Your task to perform on an android device: Open Android settings Image 0: 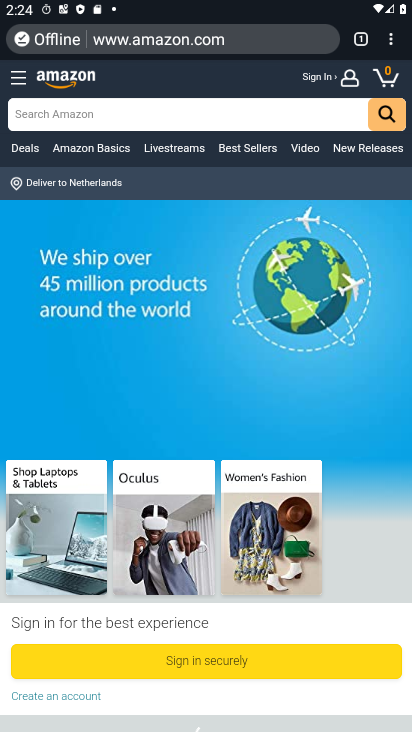
Step 0: press home button
Your task to perform on an android device: Open Android settings Image 1: 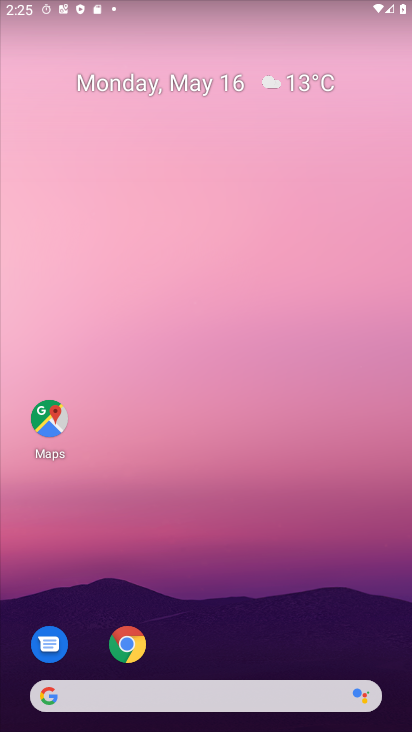
Step 1: drag from (178, 320) to (168, 63)
Your task to perform on an android device: Open Android settings Image 2: 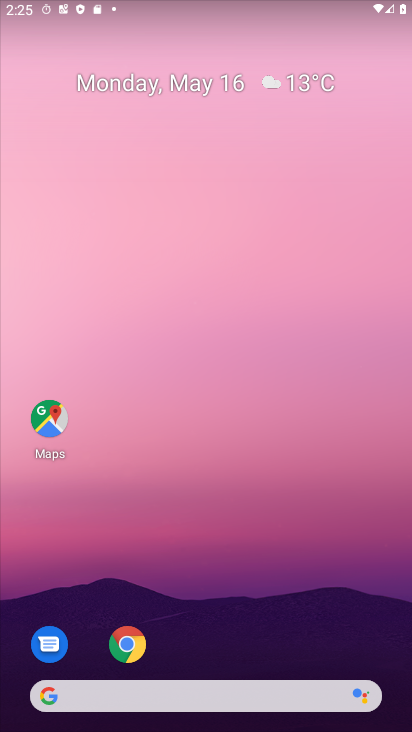
Step 2: drag from (228, 678) to (232, 51)
Your task to perform on an android device: Open Android settings Image 3: 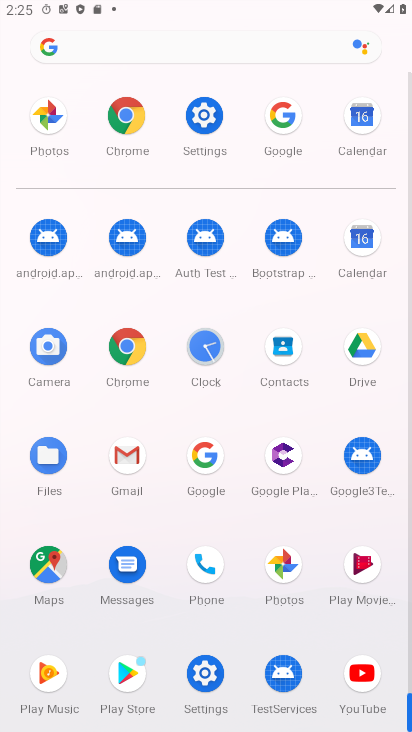
Step 3: drag from (123, 403) to (132, 9)
Your task to perform on an android device: Open Android settings Image 4: 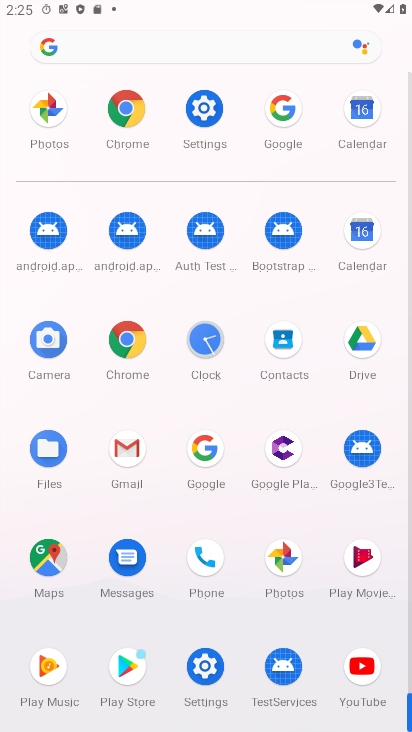
Step 4: click (216, 652)
Your task to perform on an android device: Open Android settings Image 5: 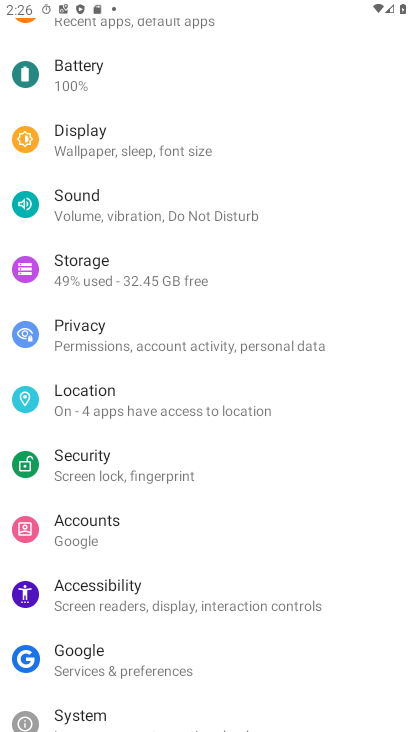
Step 5: drag from (108, 613) to (40, 16)
Your task to perform on an android device: Open Android settings Image 6: 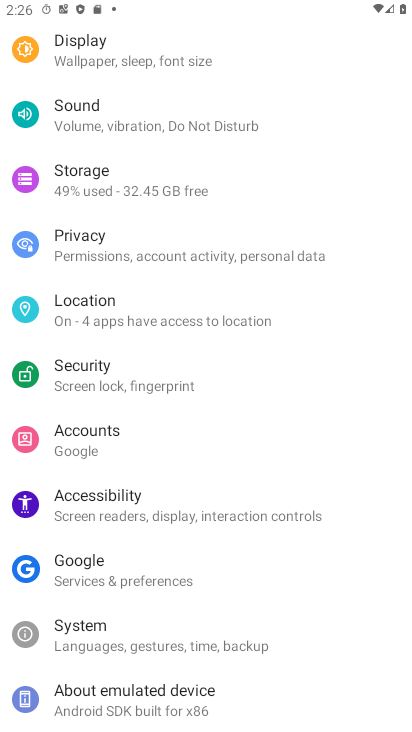
Step 6: click (193, 706)
Your task to perform on an android device: Open Android settings Image 7: 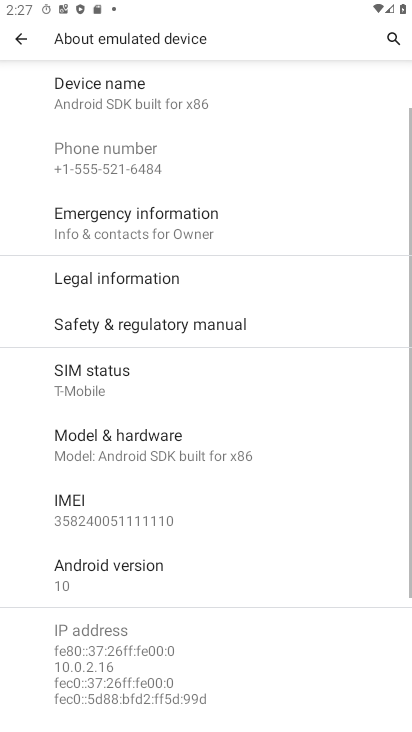
Step 7: click (188, 565)
Your task to perform on an android device: Open Android settings Image 8: 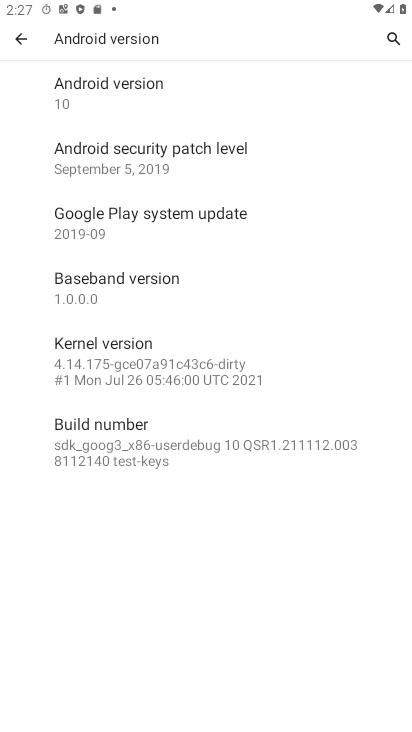
Step 8: task complete